Your task to perform on an android device: Search for Italian restaurants on Maps Image 0: 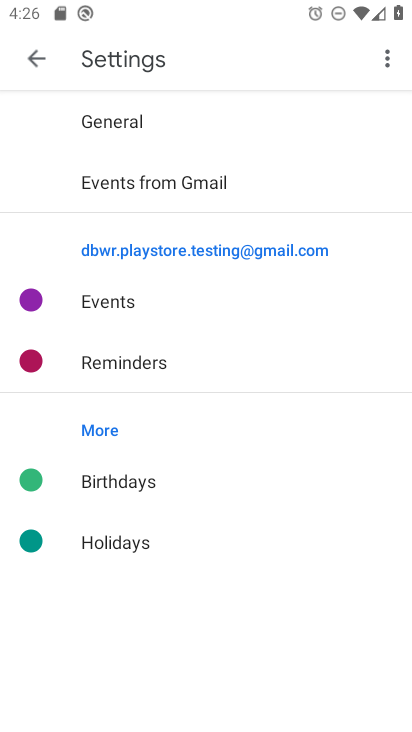
Step 0: press home button
Your task to perform on an android device: Search for Italian restaurants on Maps Image 1: 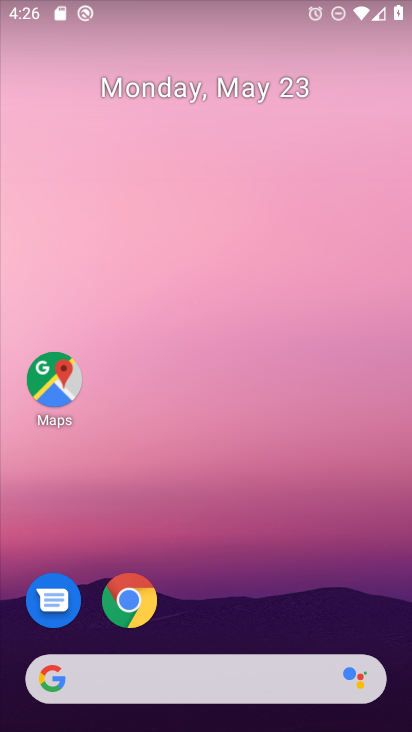
Step 1: click (56, 379)
Your task to perform on an android device: Search for Italian restaurants on Maps Image 2: 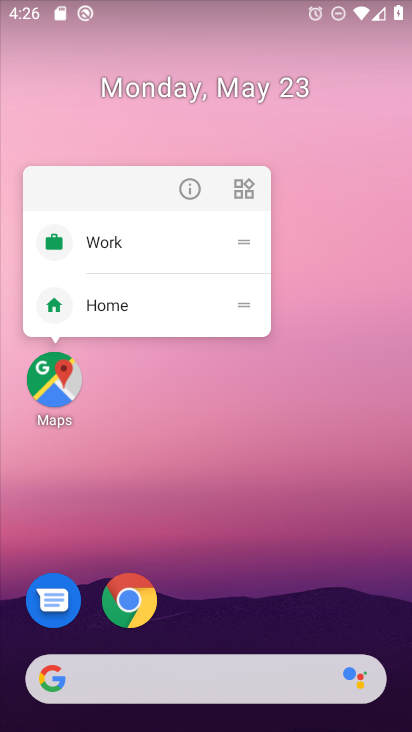
Step 2: click (56, 380)
Your task to perform on an android device: Search for Italian restaurants on Maps Image 3: 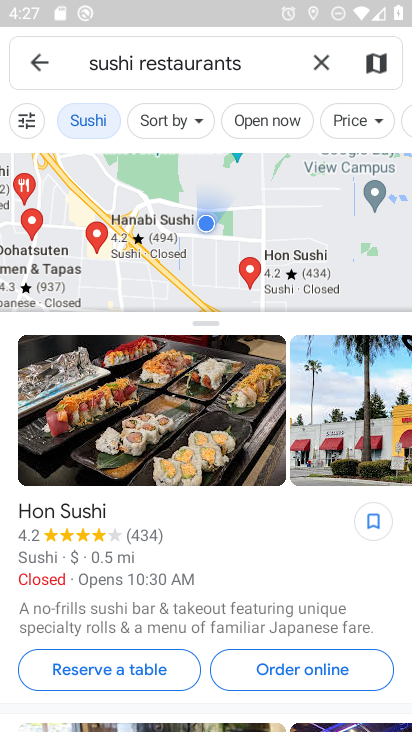
Step 3: click (326, 65)
Your task to perform on an android device: Search for Italian restaurants on Maps Image 4: 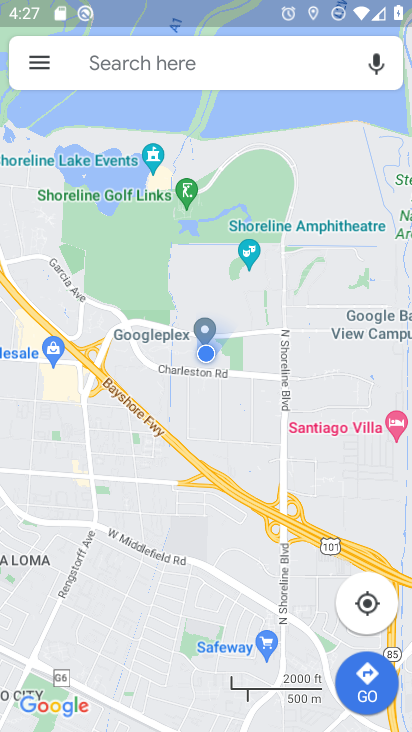
Step 4: click (123, 64)
Your task to perform on an android device: Search for Italian restaurants on Maps Image 5: 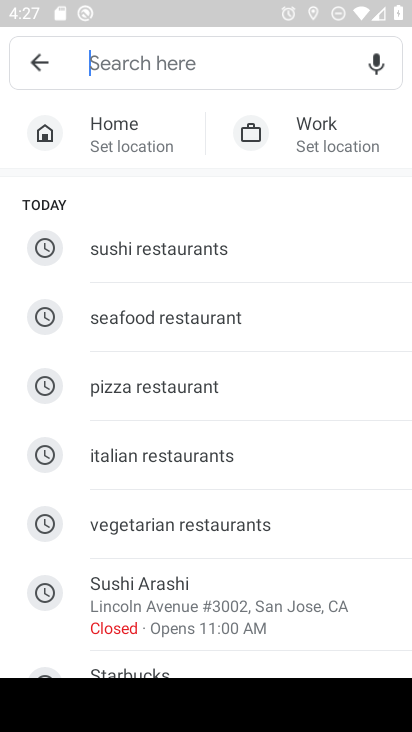
Step 5: type "italian restaurants"
Your task to perform on an android device: Search for Italian restaurants on Maps Image 6: 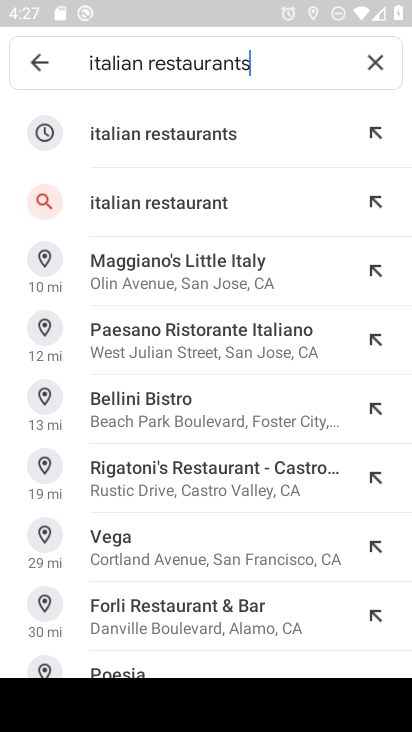
Step 6: click (146, 202)
Your task to perform on an android device: Search for Italian restaurants on Maps Image 7: 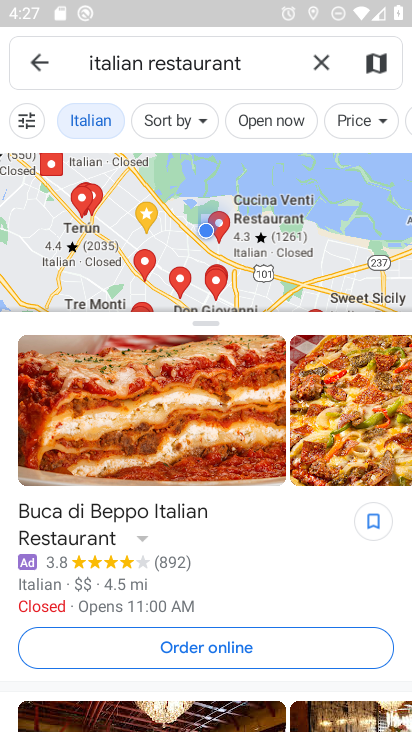
Step 7: task complete